Your task to perform on an android device: move a message to another label in the gmail app Image 0: 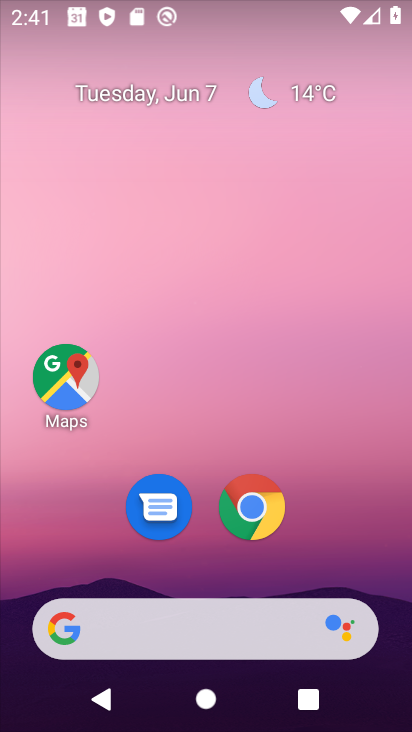
Step 0: drag from (359, 545) to (361, 147)
Your task to perform on an android device: move a message to another label in the gmail app Image 1: 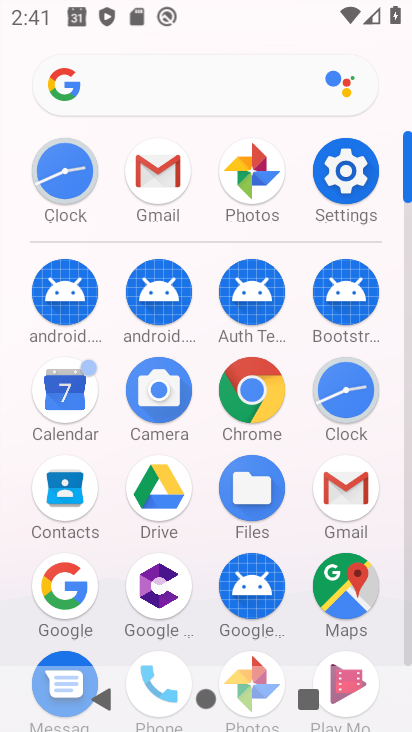
Step 1: click (182, 185)
Your task to perform on an android device: move a message to another label in the gmail app Image 2: 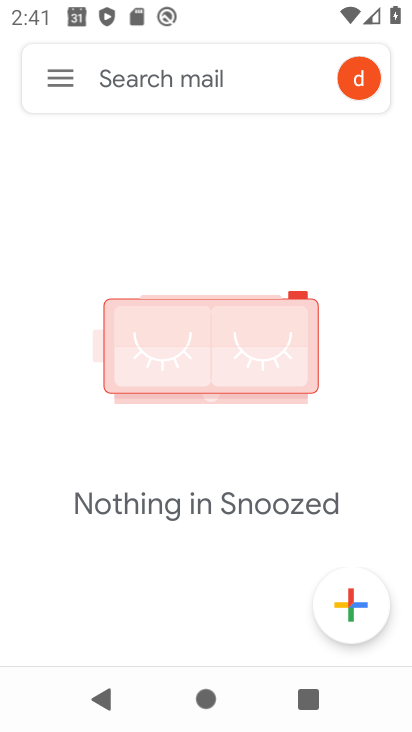
Step 2: click (66, 80)
Your task to perform on an android device: move a message to another label in the gmail app Image 3: 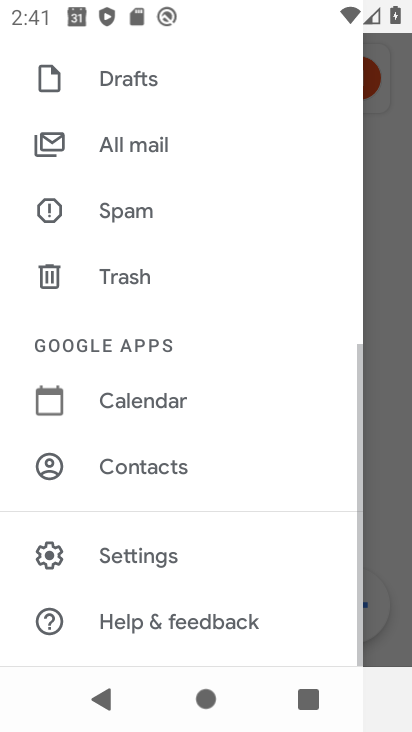
Step 3: drag from (146, 509) to (259, 173)
Your task to perform on an android device: move a message to another label in the gmail app Image 4: 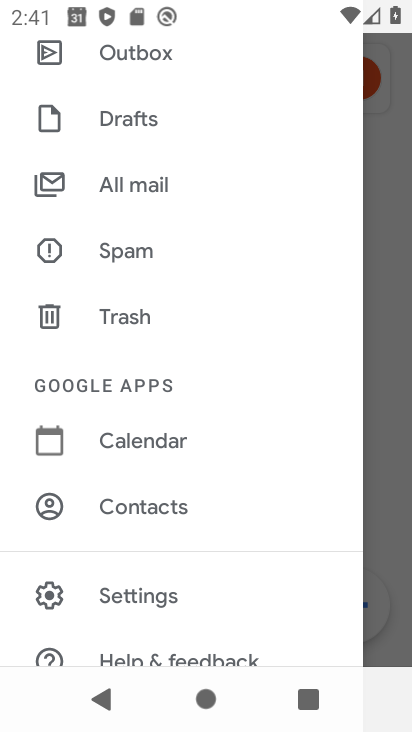
Step 4: click (112, 197)
Your task to perform on an android device: move a message to another label in the gmail app Image 5: 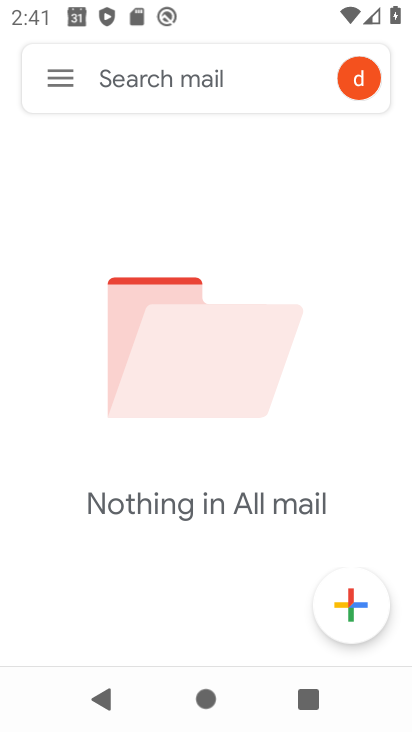
Step 5: task complete